Your task to perform on an android device: change the clock display to show seconds Image 0: 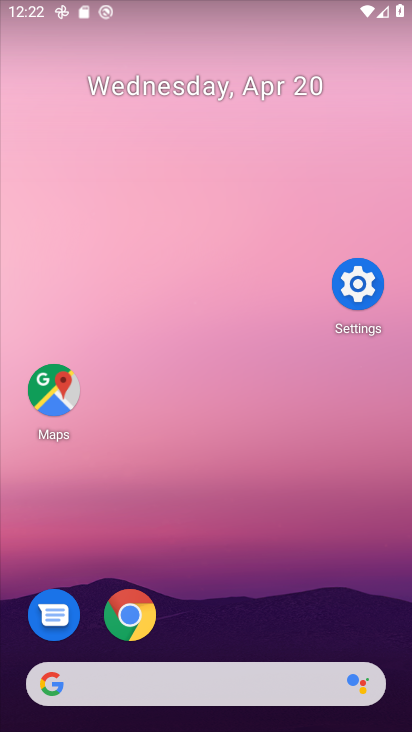
Step 0: drag from (116, 18) to (44, 25)
Your task to perform on an android device: change the clock display to show seconds Image 1: 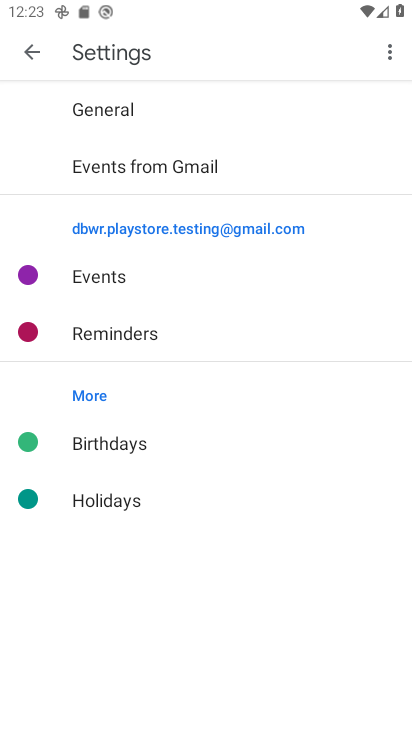
Step 1: drag from (167, 150) to (233, 381)
Your task to perform on an android device: change the clock display to show seconds Image 2: 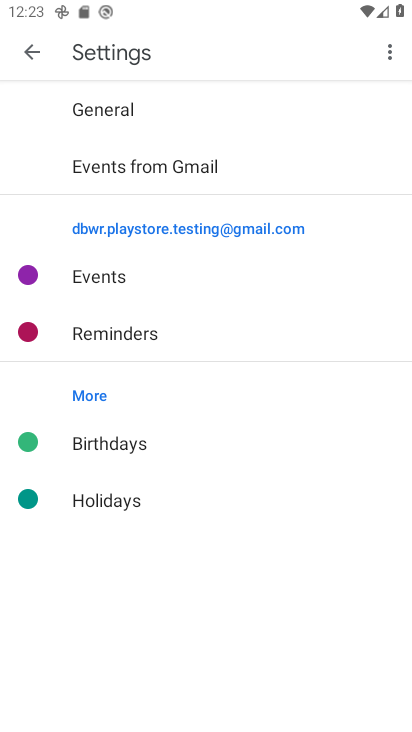
Step 2: press home button
Your task to perform on an android device: change the clock display to show seconds Image 3: 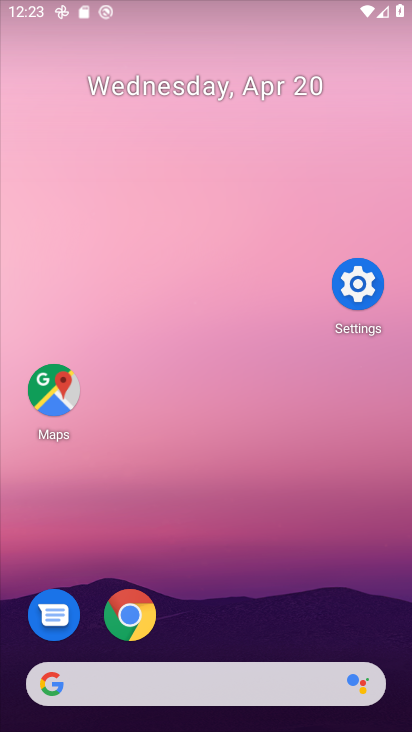
Step 3: drag from (273, 452) to (209, 30)
Your task to perform on an android device: change the clock display to show seconds Image 4: 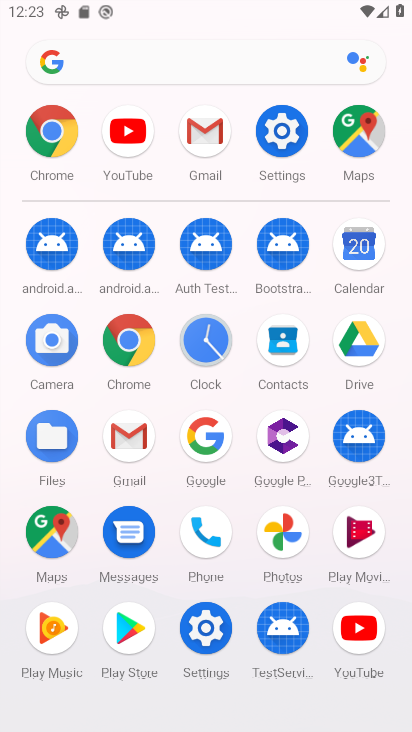
Step 4: click (200, 342)
Your task to perform on an android device: change the clock display to show seconds Image 5: 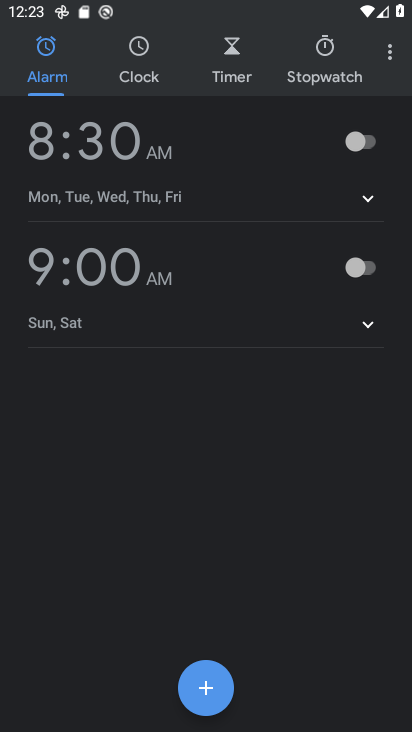
Step 5: click (383, 46)
Your task to perform on an android device: change the clock display to show seconds Image 6: 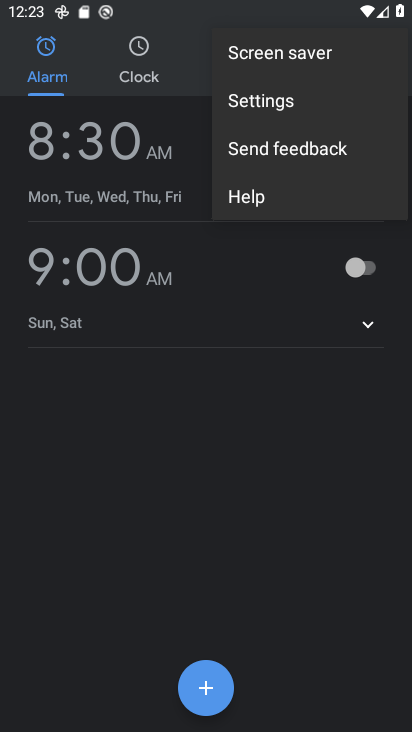
Step 6: click (304, 106)
Your task to perform on an android device: change the clock display to show seconds Image 7: 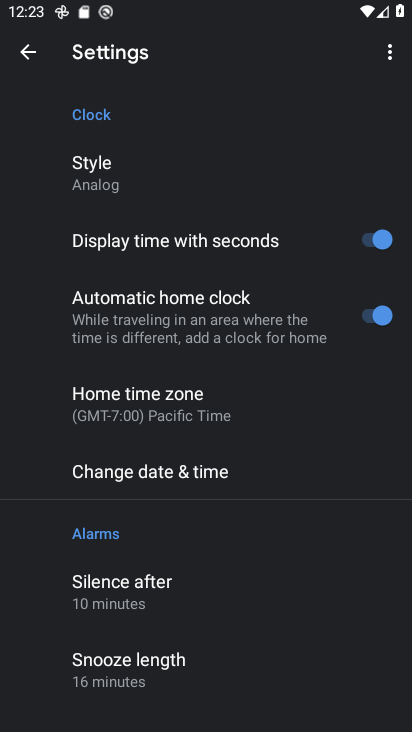
Step 7: click (331, 239)
Your task to perform on an android device: change the clock display to show seconds Image 8: 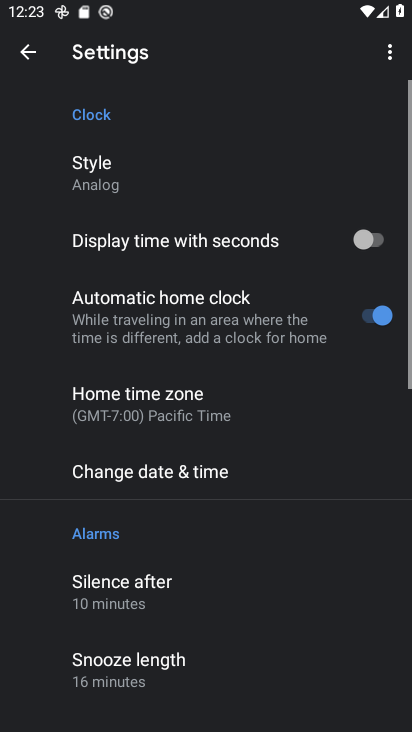
Step 8: task complete